Your task to perform on an android device: Show me popular games on the Play Store Image 0: 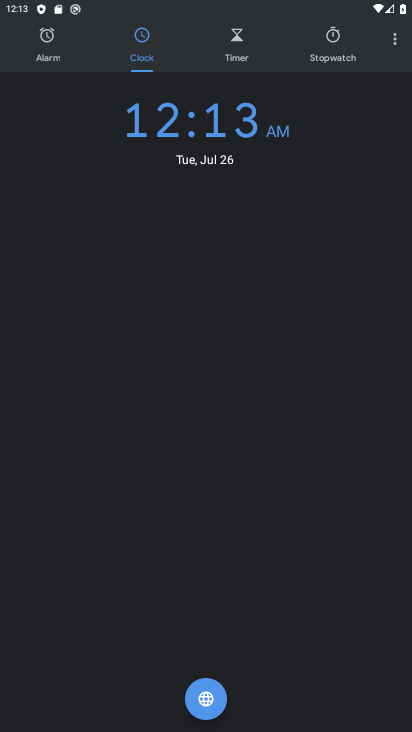
Step 0: press home button
Your task to perform on an android device: Show me popular games on the Play Store Image 1: 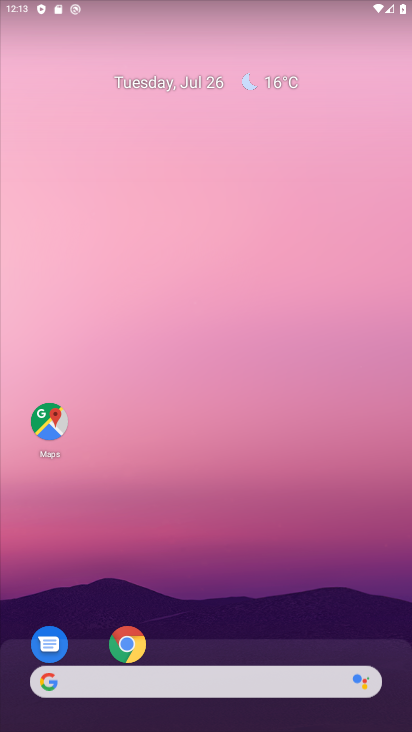
Step 1: drag from (277, 619) to (269, 129)
Your task to perform on an android device: Show me popular games on the Play Store Image 2: 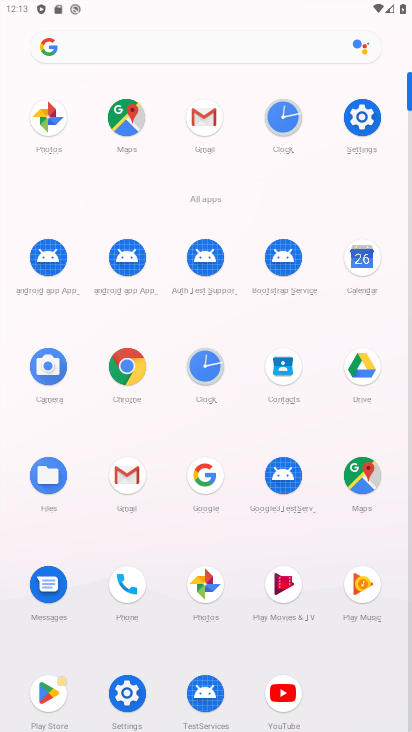
Step 2: click (48, 694)
Your task to perform on an android device: Show me popular games on the Play Store Image 3: 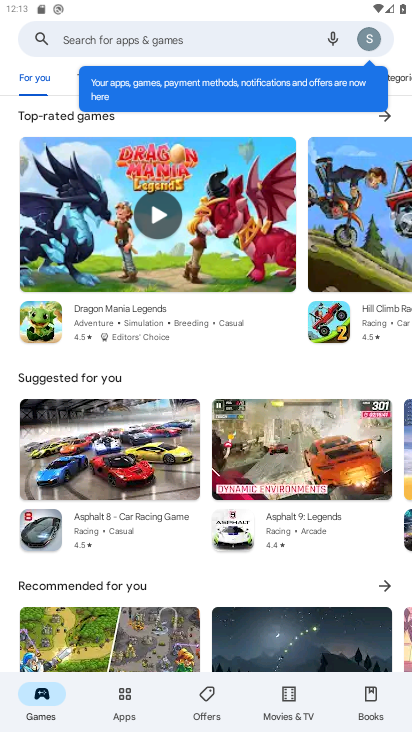
Step 3: click (46, 82)
Your task to perform on an android device: Show me popular games on the Play Store Image 4: 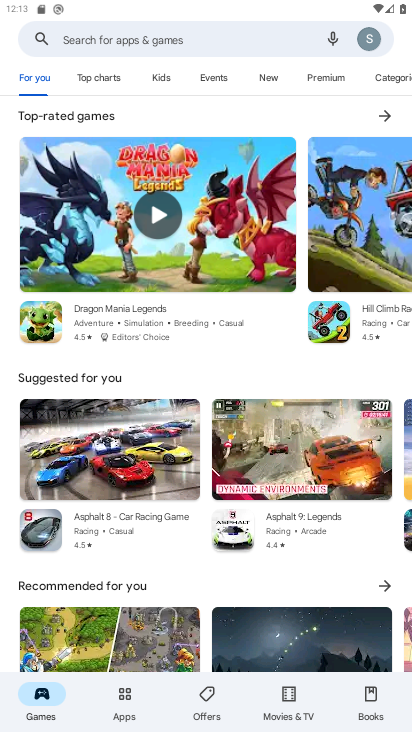
Step 4: click (79, 75)
Your task to perform on an android device: Show me popular games on the Play Store Image 5: 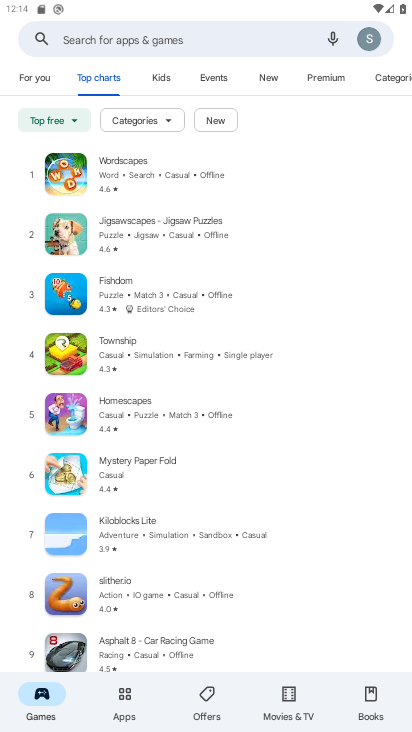
Step 5: task complete